Your task to perform on an android device: Search for the best coffee tables on Crate & Barrel Image 0: 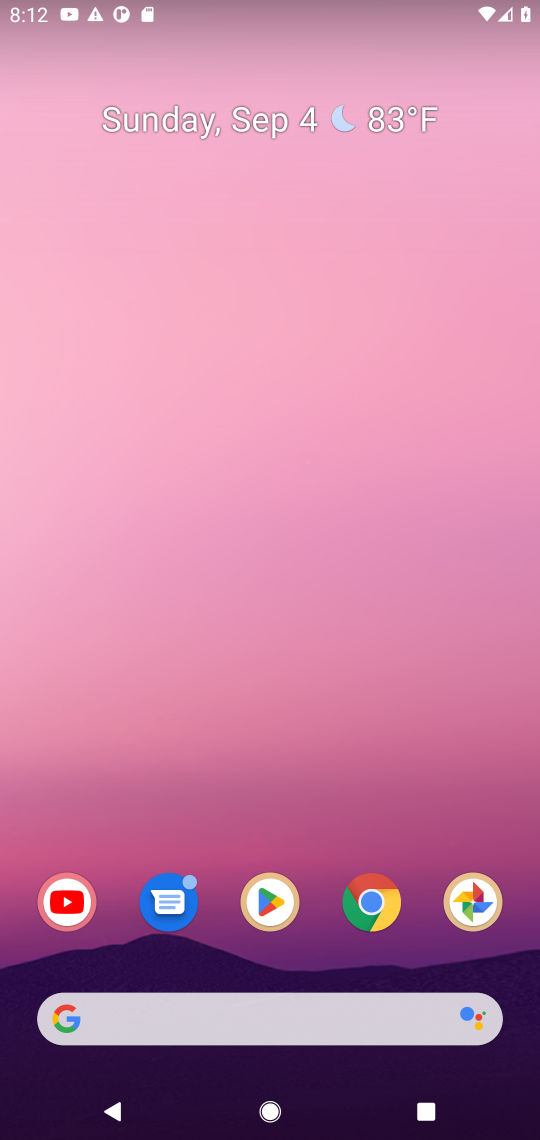
Step 0: click (81, 915)
Your task to perform on an android device: Search for the best coffee tables on Crate & Barrel Image 1: 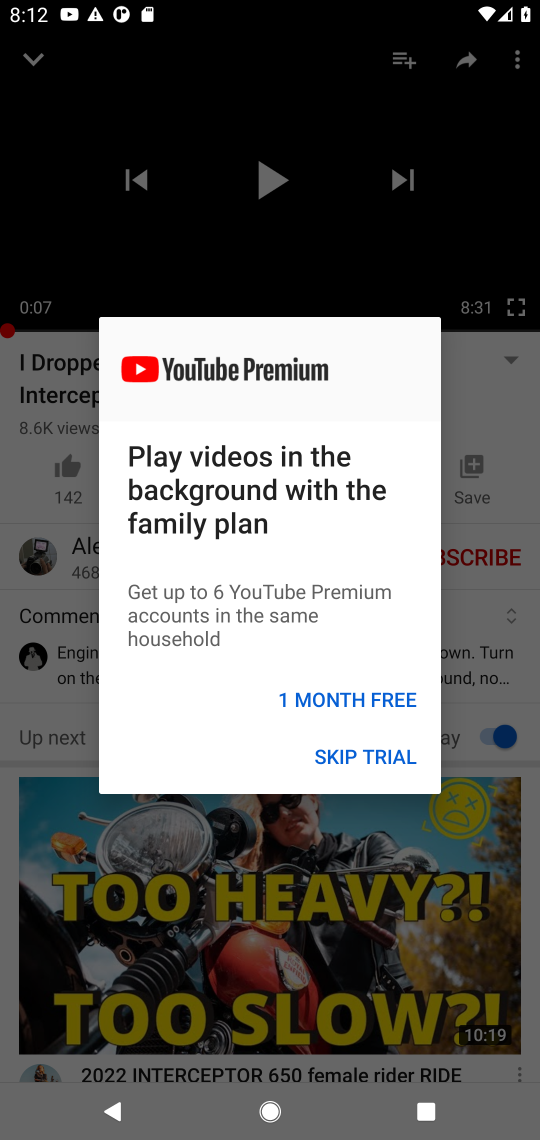
Step 1: click (304, 762)
Your task to perform on an android device: Search for the best coffee tables on Crate & Barrel Image 2: 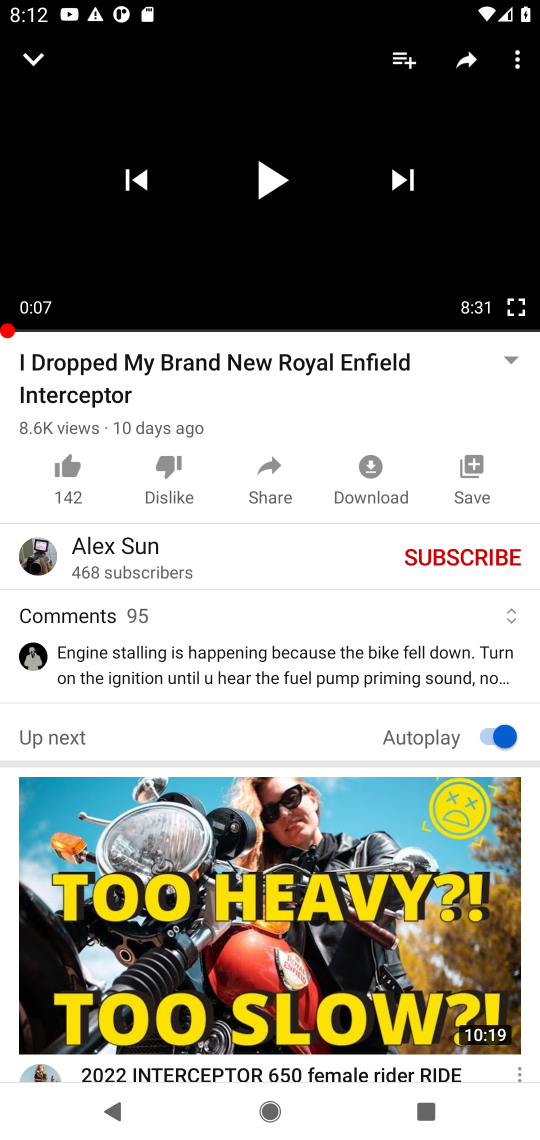
Step 2: click (236, 893)
Your task to perform on an android device: Search for the best coffee tables on Crate & Barrel Image 3: 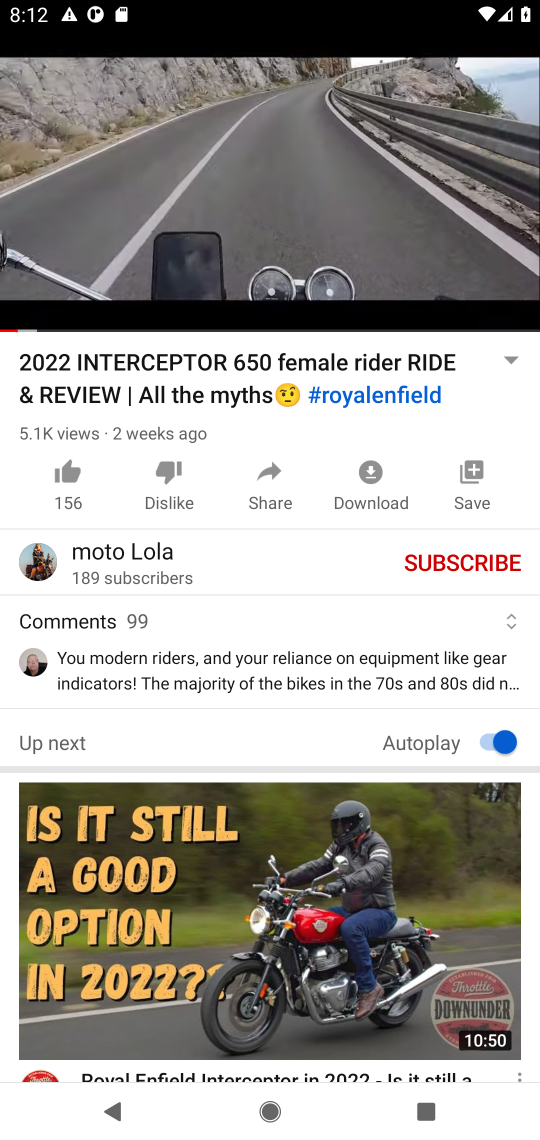
Step 3: task complete